Your task to perform on an android device: set the timer Image 0: 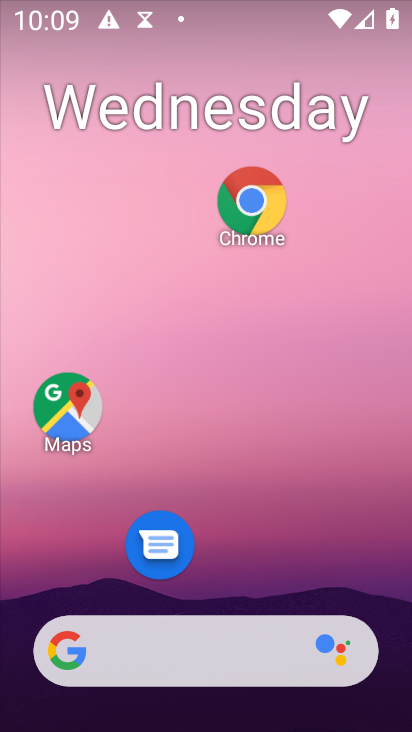
Step 0: drag from (261, 574) to (244, 205)
Your task to perform on an android device: set the timer Image 1: 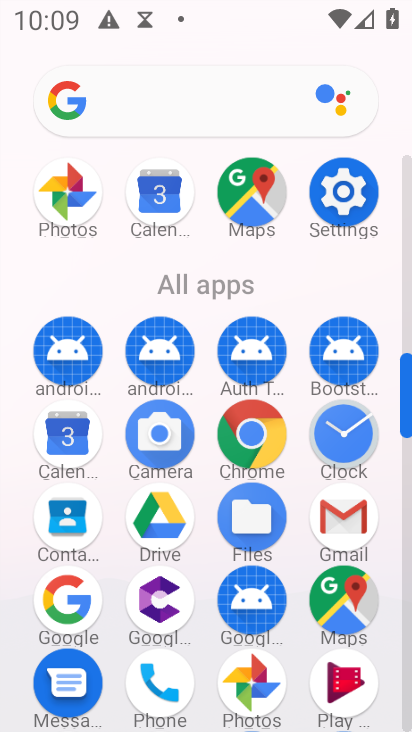
Step 1: click (329, 447)
Your task to perform on an android device: set the timer Image 2: 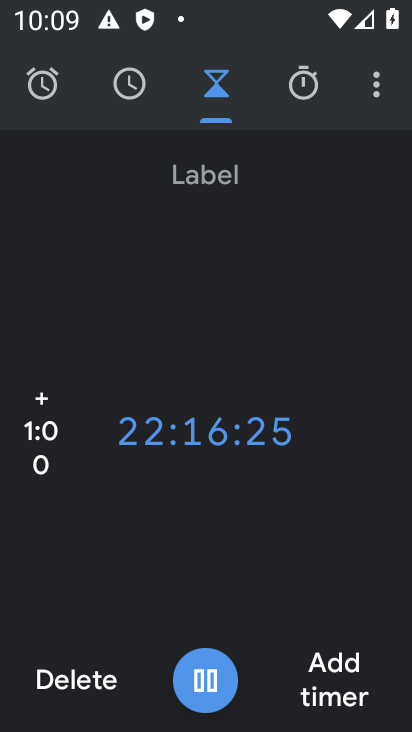
Step 2: task complete